Your task to perform on an android device: see creations saved in the google photos Image 0: 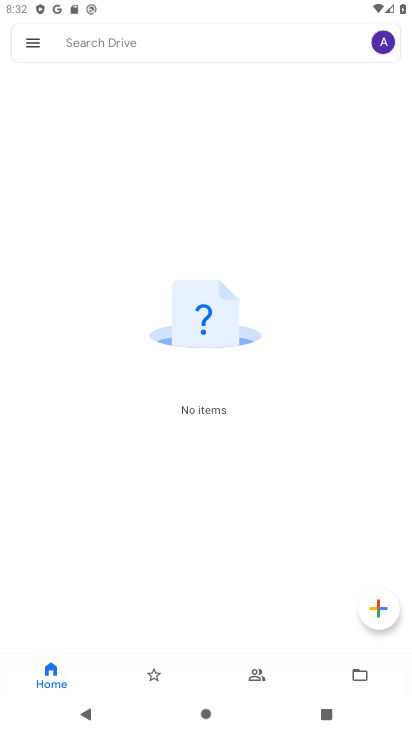
Step 0: press home button
Your task to perform on an android device: see creations saved in the google photos Image 1: 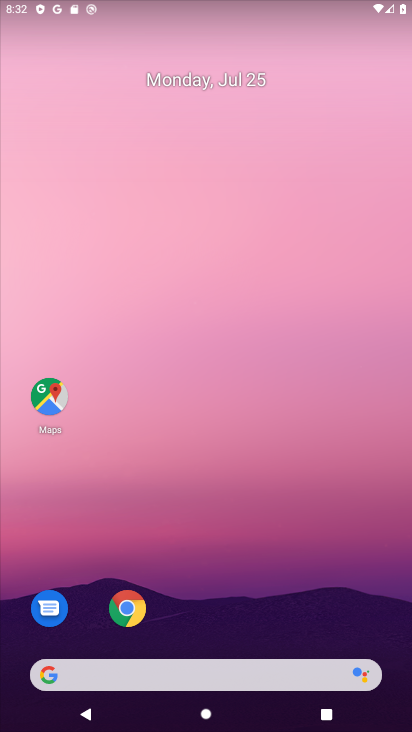
Step 1: drag from (214, 673) to (226, 287)
Your task to perform on an android device: see creations saved in the google photos Image 2: 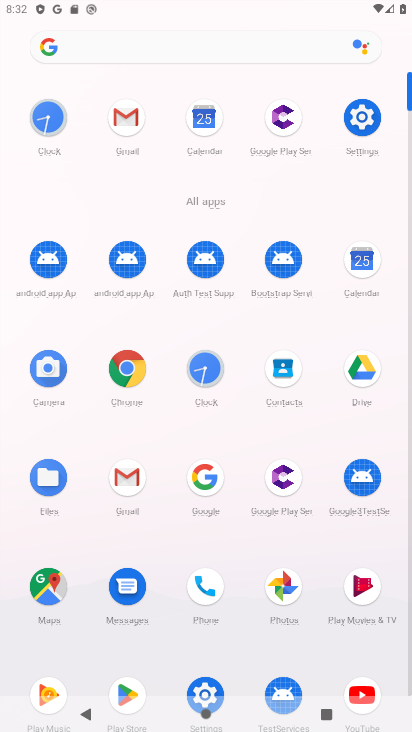
Step 2: click (272, 579)
Your task to perform on an android device: see creations saved in the google photos Image 3: 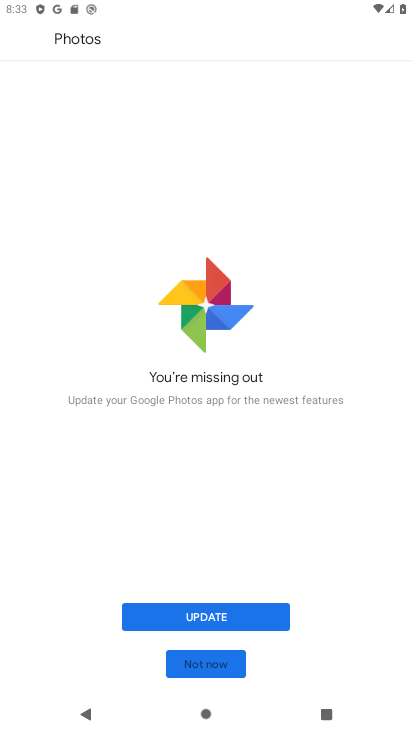
Step 3: click (204, 659)
Your task to perform on an android device: see creations saved in the google photos Image 4: 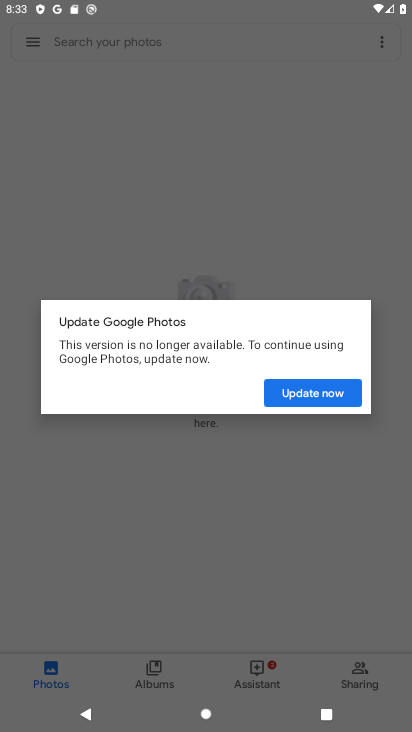
Step 4: click (296, 391)
Your task to perform on an android device: see creations saved in the google photos Image 5: 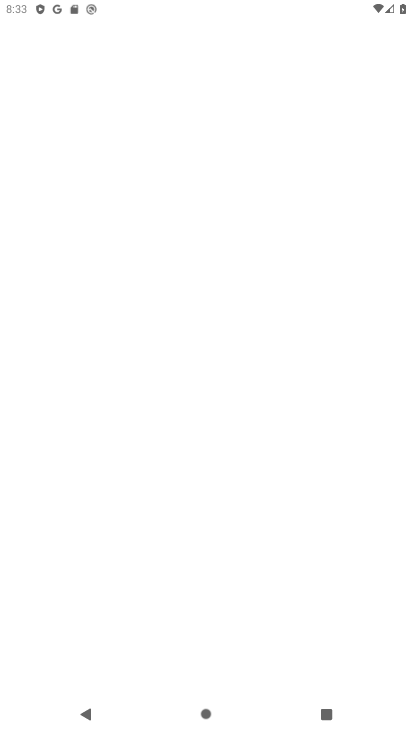
Step 5: press back button
Your task to perform on an android device: see creations saved in the google photos Image 6: 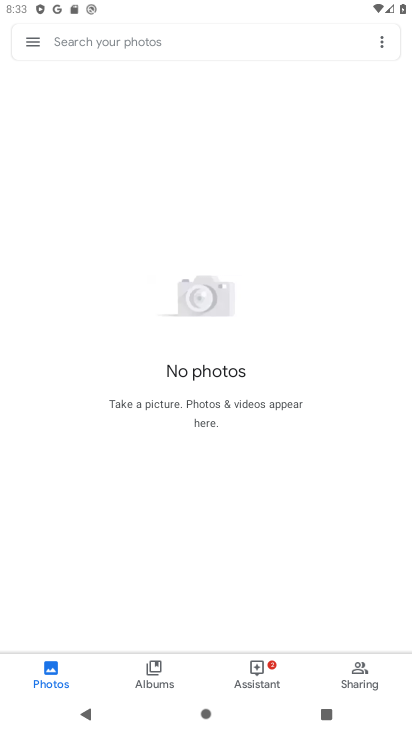
Step 6: click (154, 671)
Your task to perform on an android device: see creations saved in the google photos Image 7: 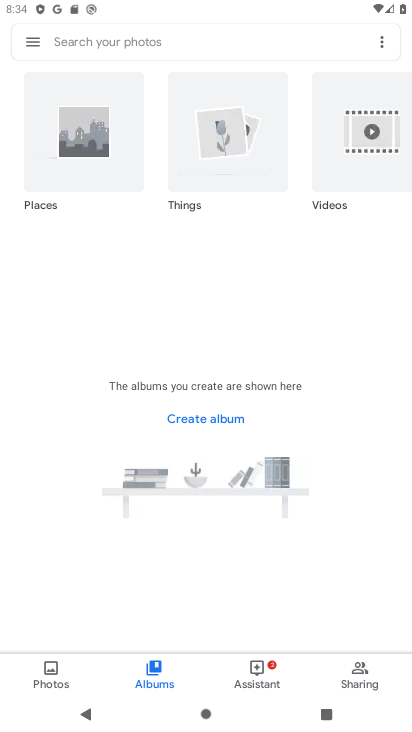
Step 7: task complete